Your task to perform on an android device: change timer sound Image 0: 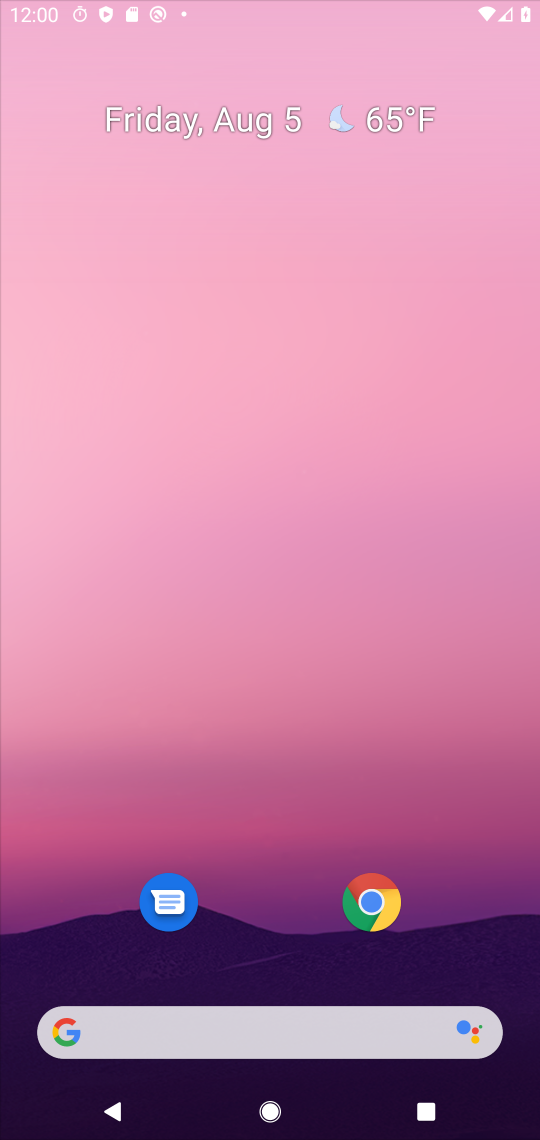
Step 0: press home button
Your task to perform on an android device: change timer sound Image 1: 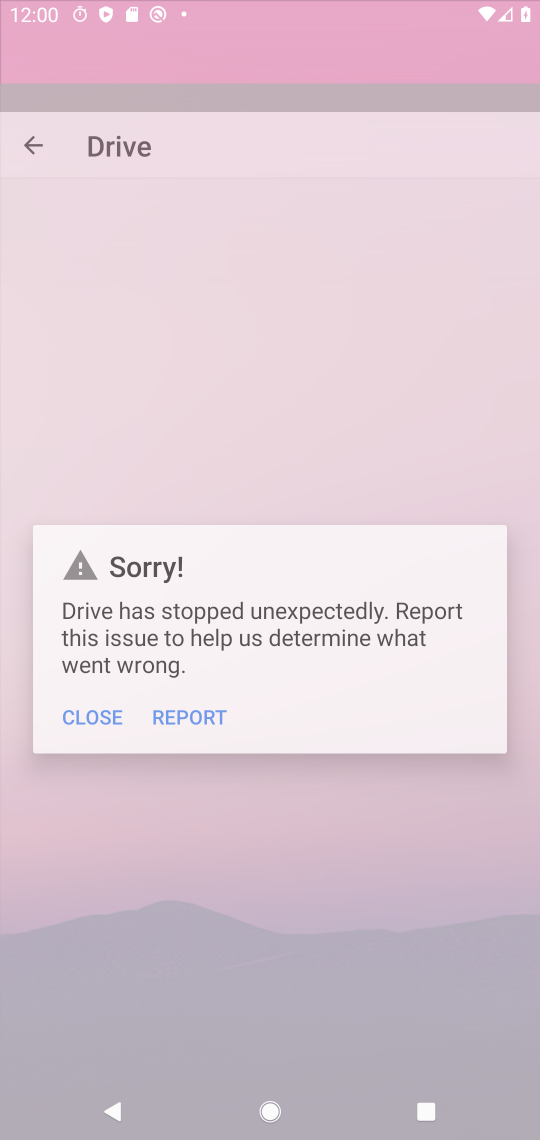
Step 1: drag from (320, 1062) to (452, 416)
Your task to perform on an android device: change timer sound Image 2: 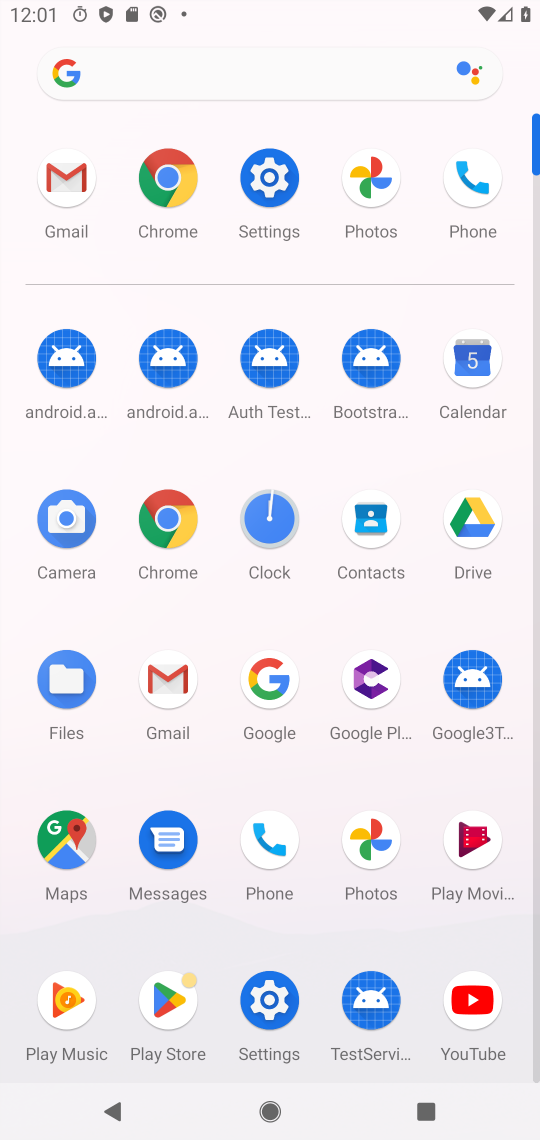
Step 2: click (259, 498)
Your task to perform on an android device: change timer sound Image 3: 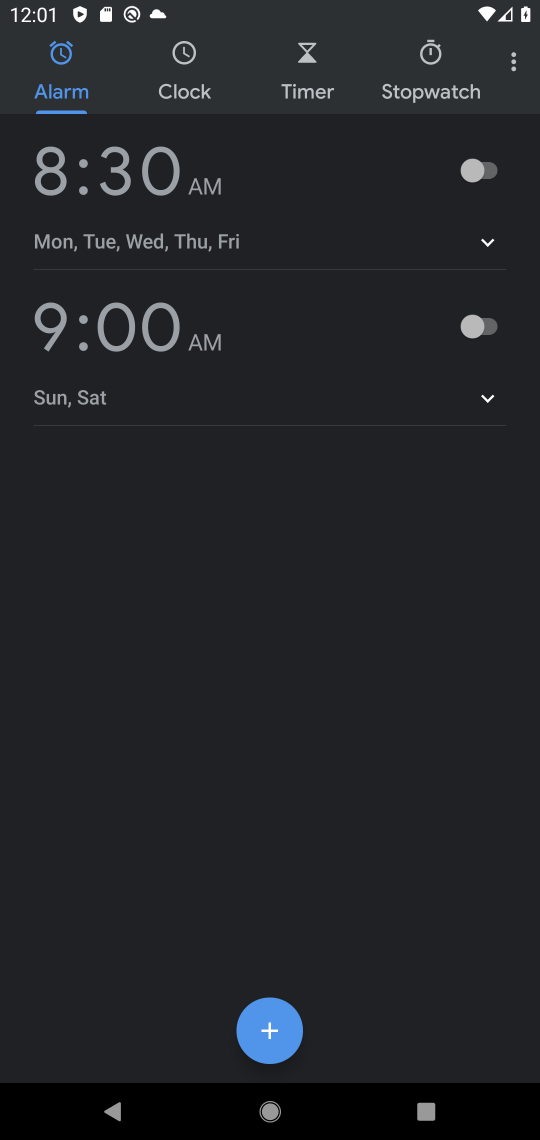
Step 3: click (515, 69)
Your task to perform on an android device: change timer sound Image 4: 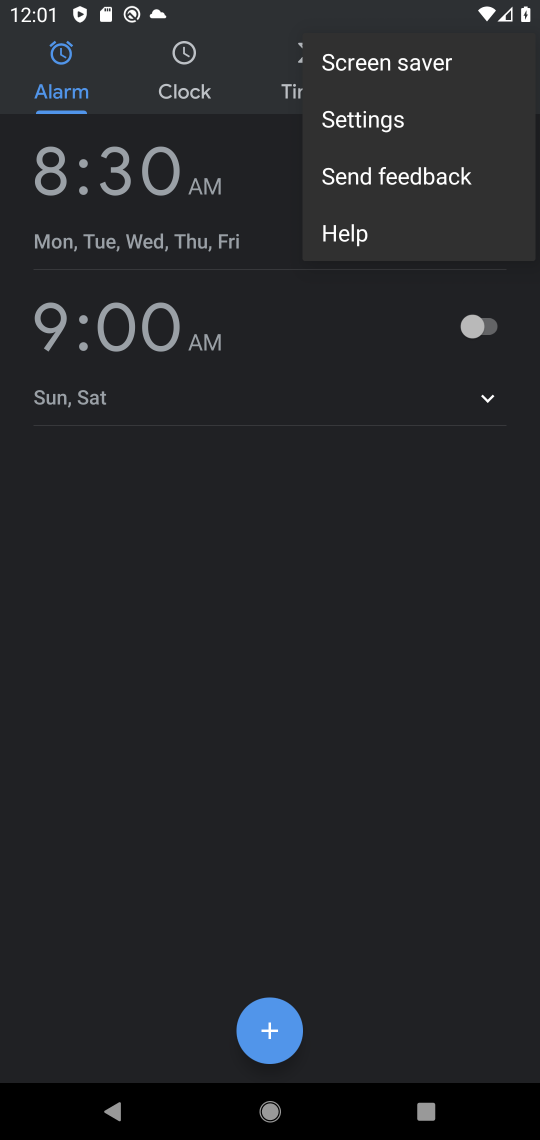
Step 4: click (382, 136)
Your task to perform on an android device: change timer sound Image 5: 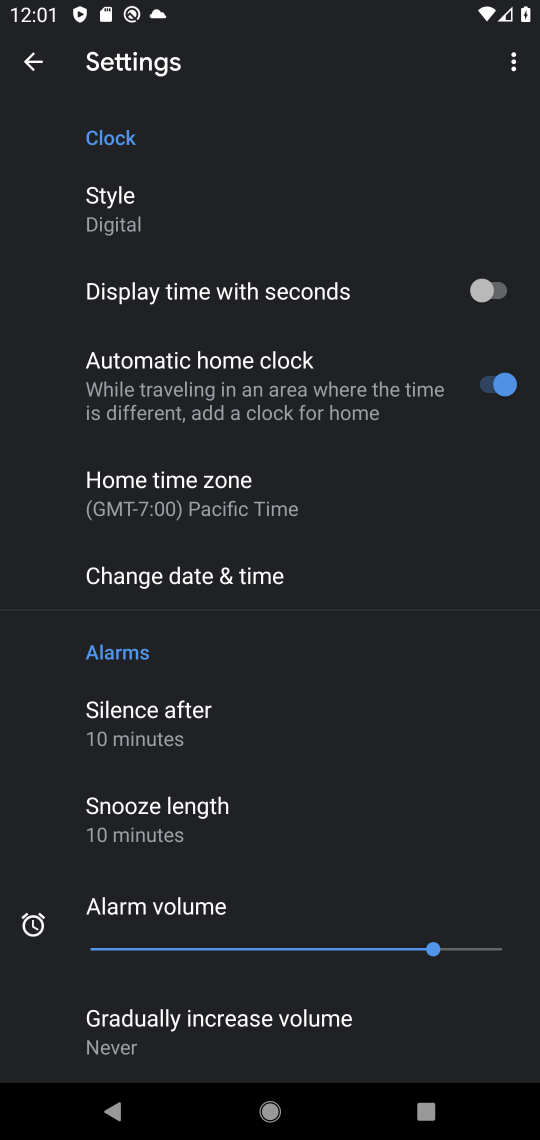
Step 5: drag from (260, 585) to (329, 340)
Your task to perform on an android device: change timer sound Image 6: 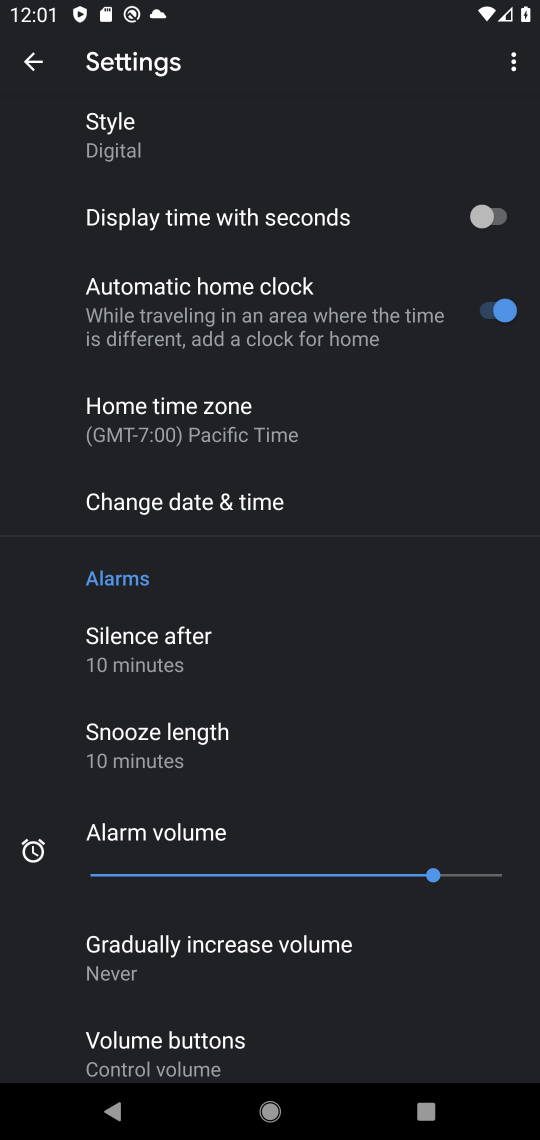
Step 6: drag from (261, 1021) to (308, 790)
Your task to perform on an android device: change timer sound Image 7: 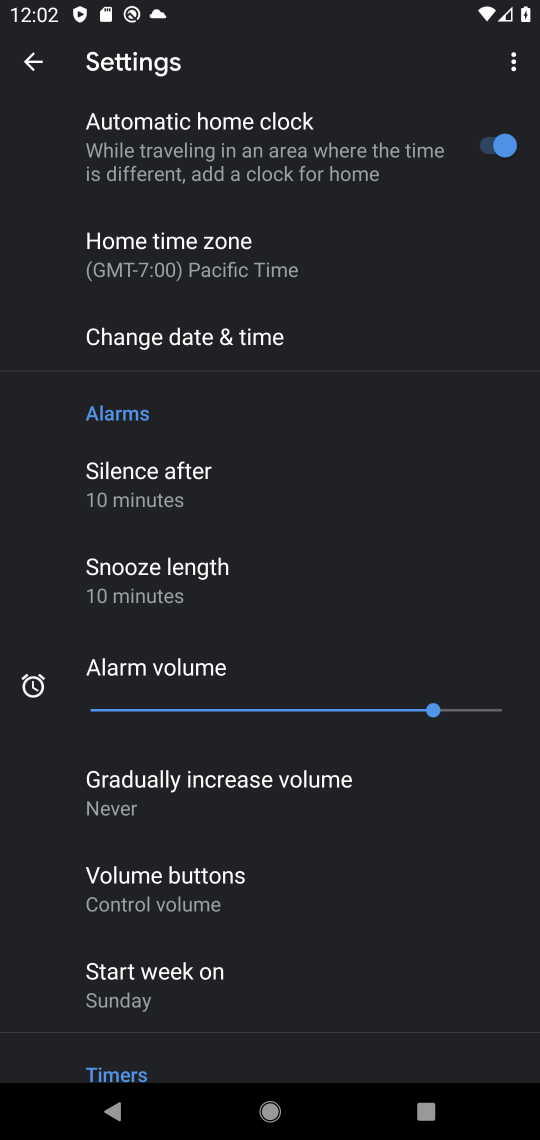
Step 7: drag from (209, 1000) to (281, 746)
Your task to perform on an android device: change timer sound Image 8: 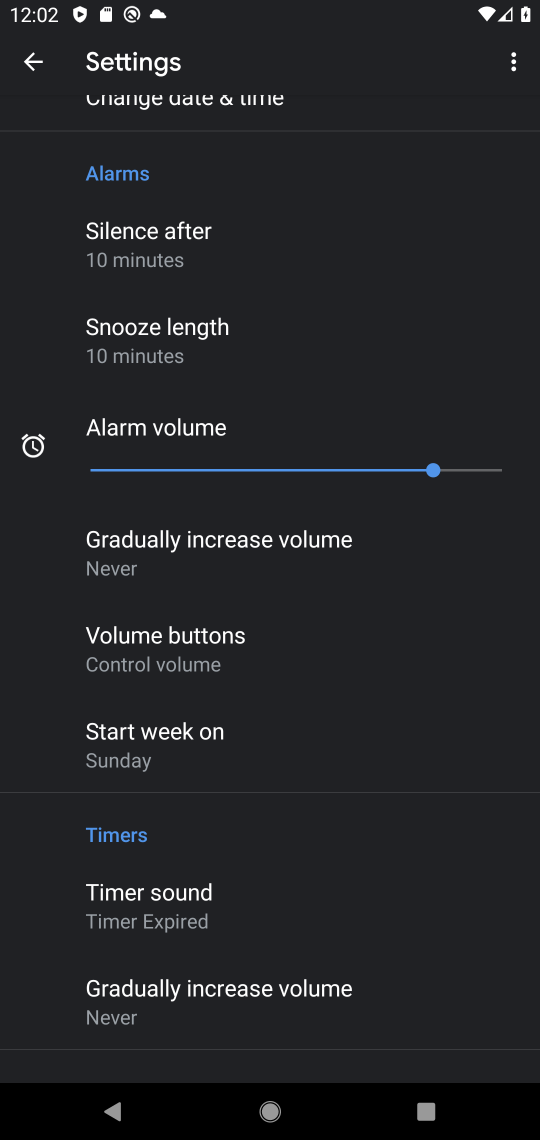
Step 8: click (212, 913)
Your task to perform on an android device: change timer sound Image 9: 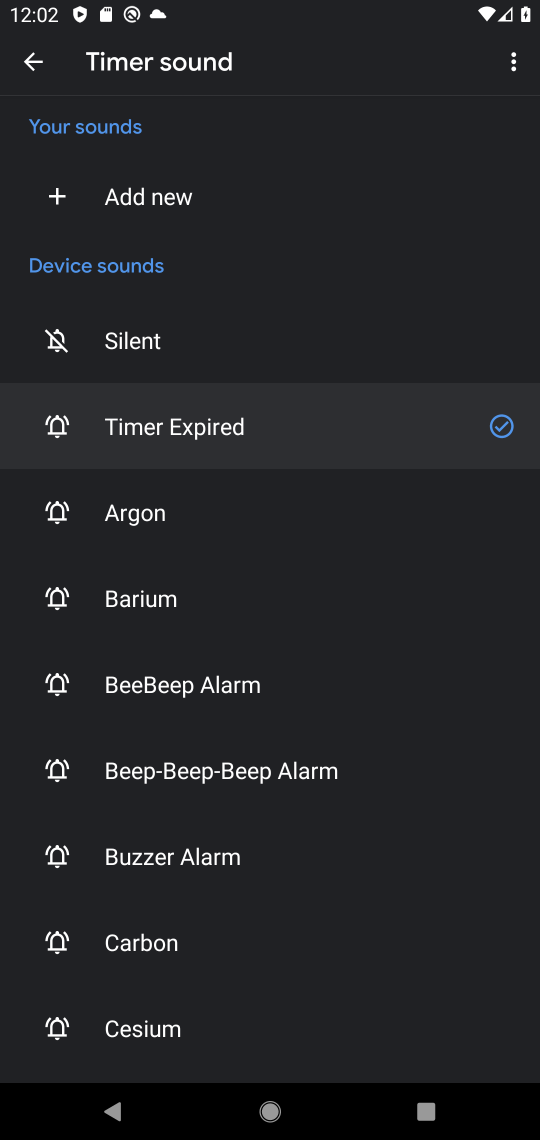
Step 9: click (182, 507)
Your task to perform on an android device: change timer sound Image 10: 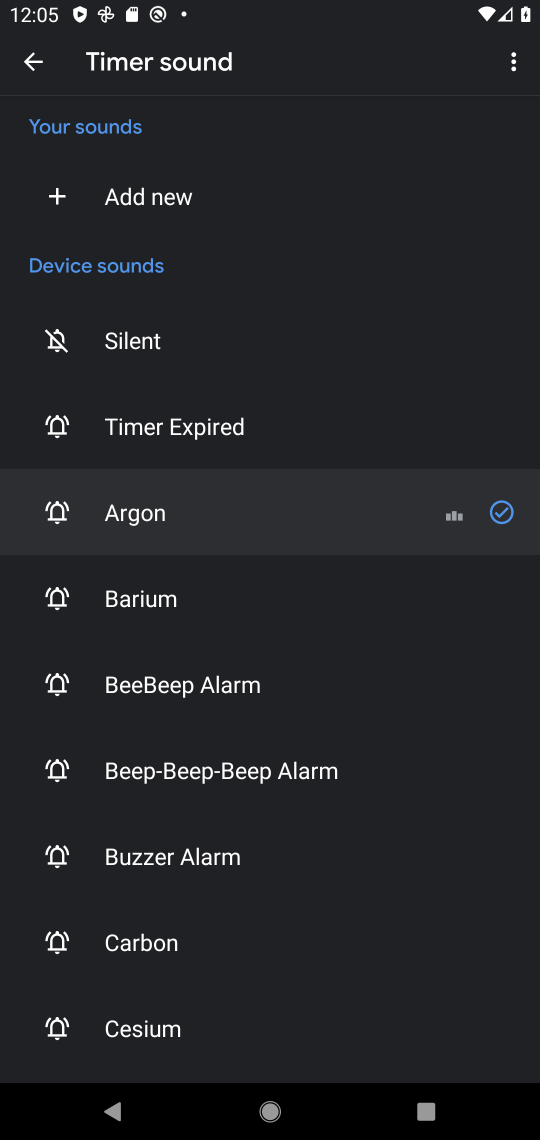
Step 10: task complete